Your task to perform on an android device: Search for pizza restaurants on Maps Image 0: 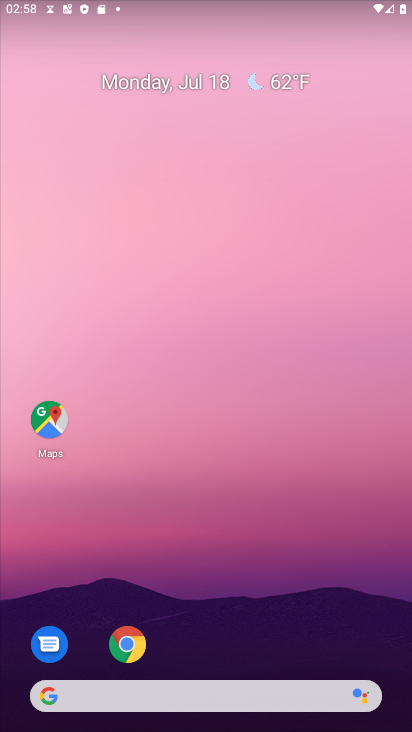
Step 0: drag from (232, 465) to (197, 285)
Your task to perform on an android device: Search for pizza restaurants on Maps Image 1: 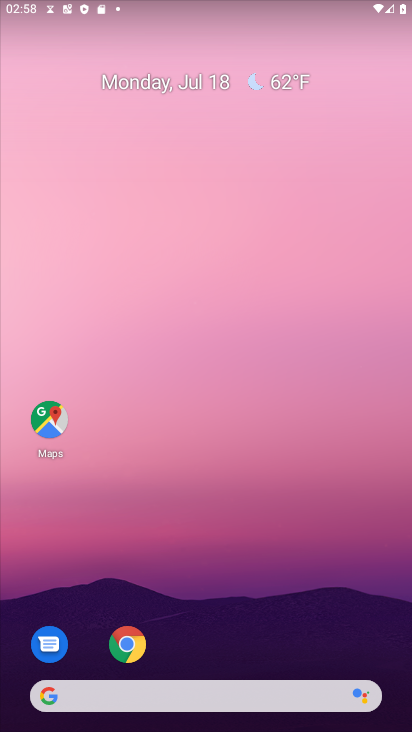
Step 1: drag from (225, 672) to (189, 332)
Your task to perform on an android device: Search for pizza restaurants on Maps Image 2: 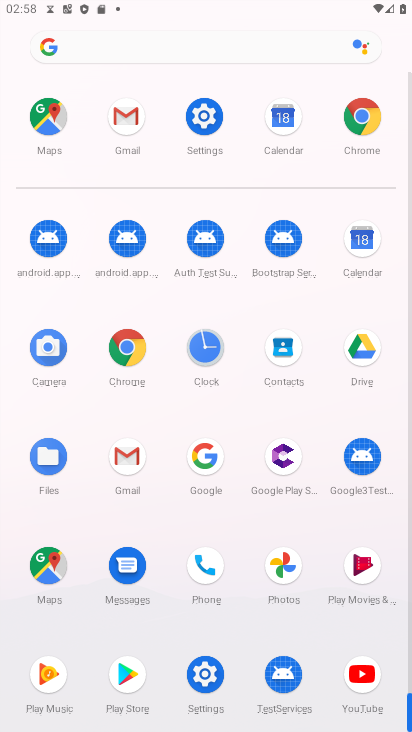
Step 2: click (38, 571)
Your task to perform on an android device: Search for pizza restaurants on Maps Image 3: 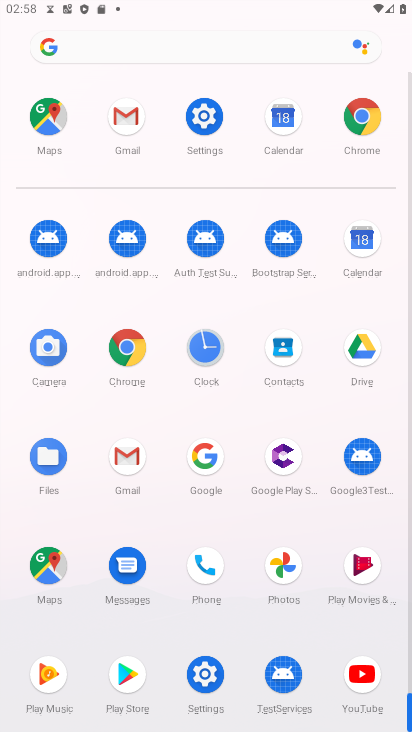
Step 3: click (40, 570)
Your task to perform on an android device: Search for pizza restaurants on Maps Image 4: 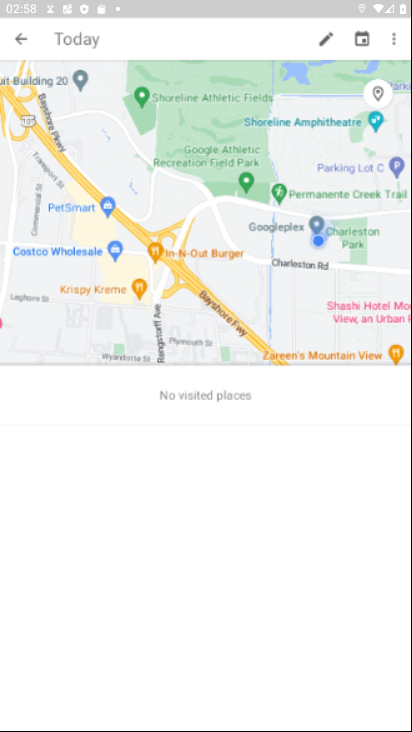
Step 4: click (101, 27)
Your task to perform on an android device: Search for pizza restaurants on Maps Image 5: 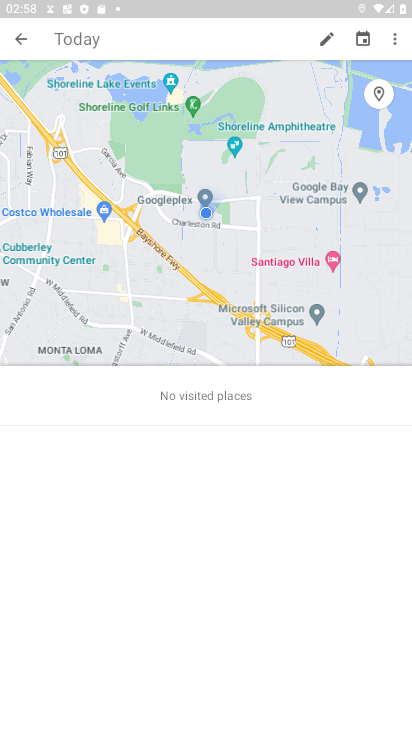
Step 5: click (110, 45)
Your task to perform on an android device: Search for pizza restaurants on Maps Image 6: 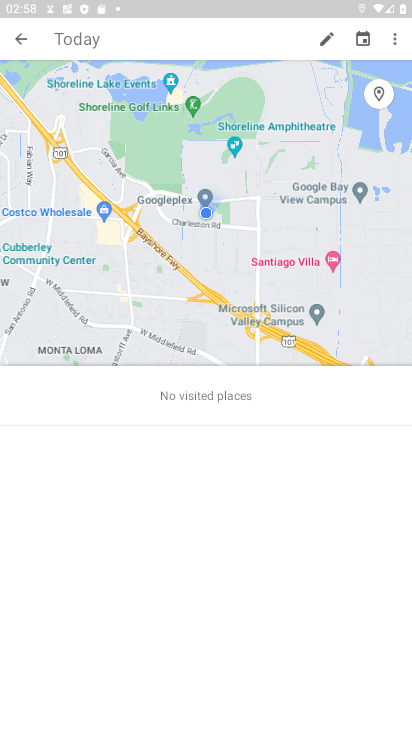
Step 6: click (111, 34)
Your task to perform on an android device: Search for pizza restaurants on Maps Image 7: 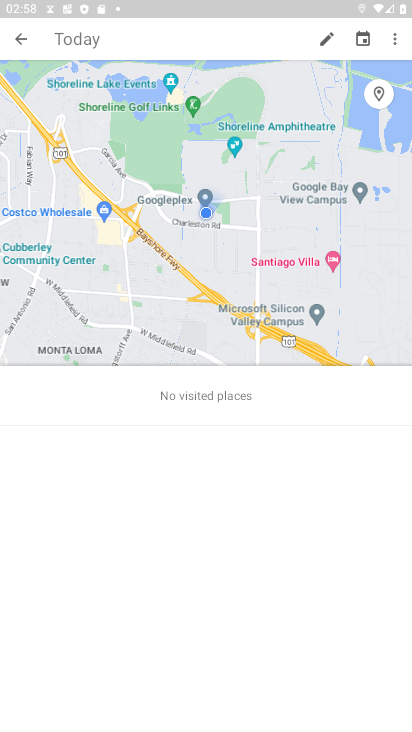
Step 7: click (110, 35)
Your task to perform on an android device: Search for pizza restaurants on Maps Image 8: 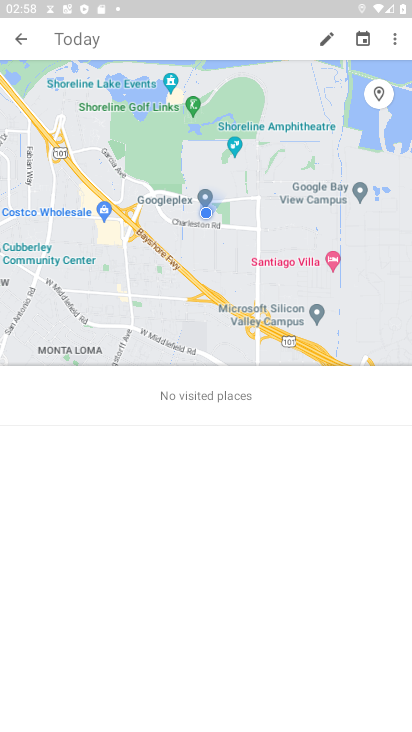
Step 8: click (111, 36)
Your task to perform on an android device: Search for pizza restaurants on Maps Image 9: 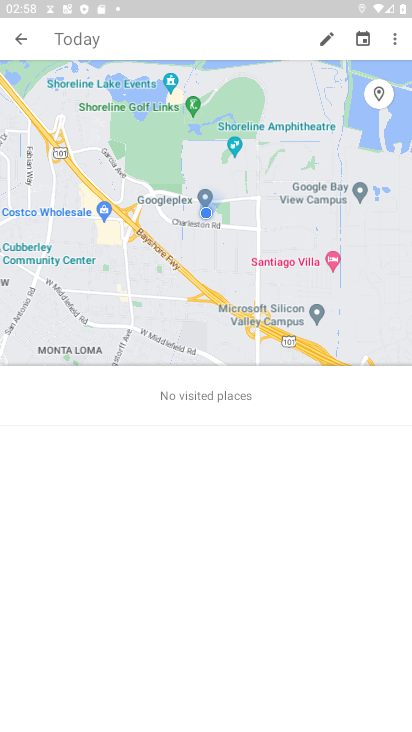
Step 9: click (112, 41)
Your task to perform on an android device: Search for pizza restaurants on Maps Image 10: 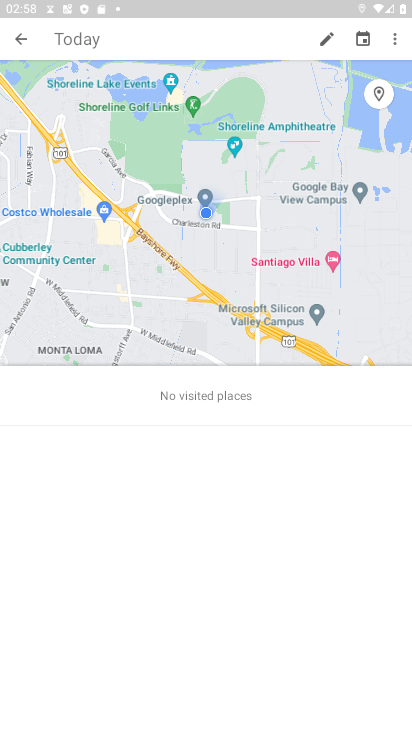
Step 10: click (47, 31)
Your task to perform on an android device: Search for pizza restaurants on Maps Image 11: 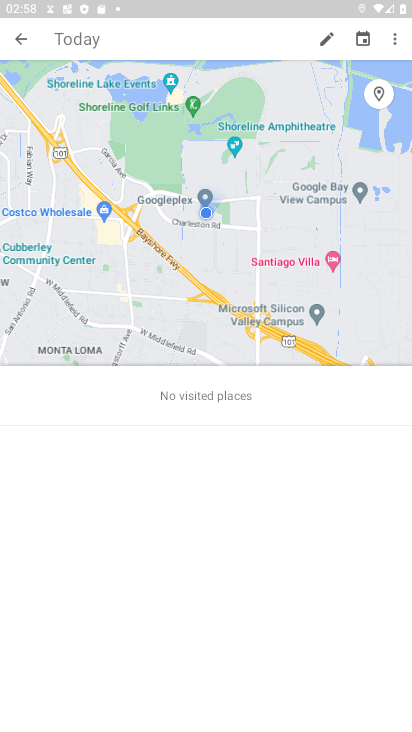
Step 11: click (50, 31)
Your task to perform on an android device: Search for pizza restaurants on Maps Image 12: 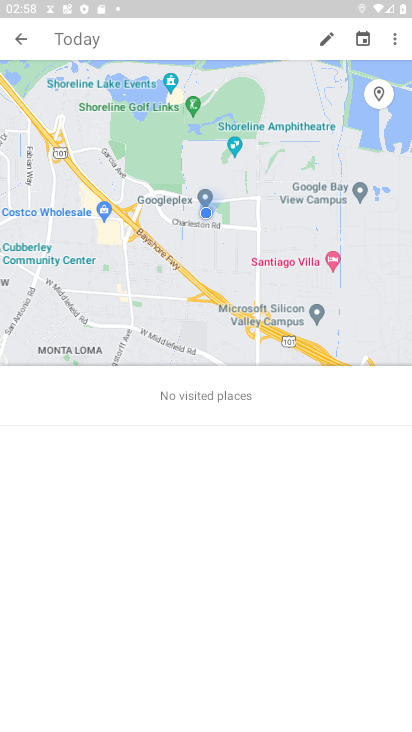
Step 12: click (49, 31)
Your task to perform on an android device: Search for pizza restaurants on Maps Image 13: 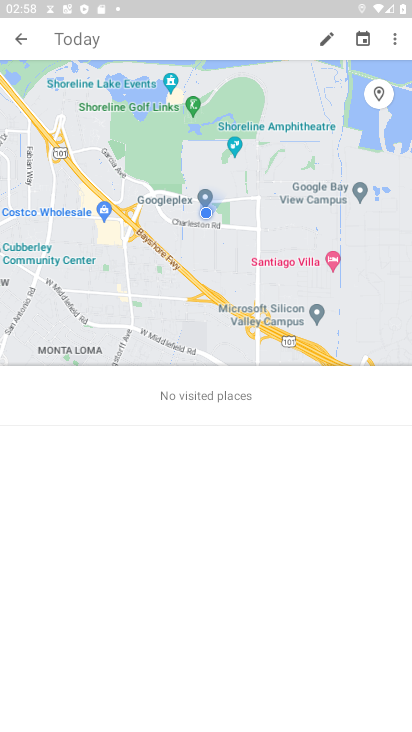
Step 13: click (36, 34)
Your task to perform on an android device: Search for pizza restaurants on Maps Image 14: 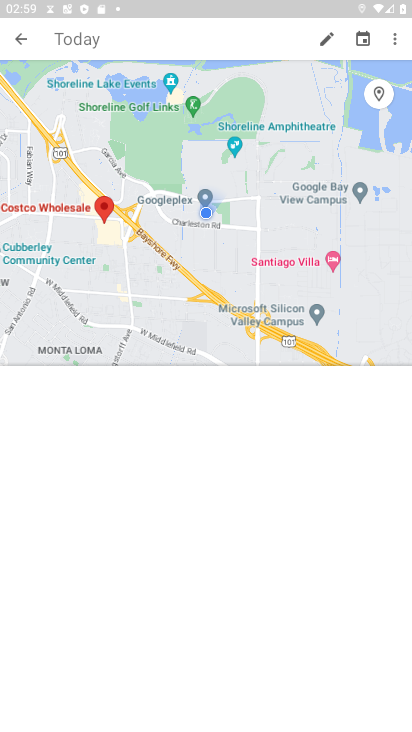
Step 14: click (66, 35)
Your task to perform on an android device: Search for pizza restaurants on Maps Image 15: 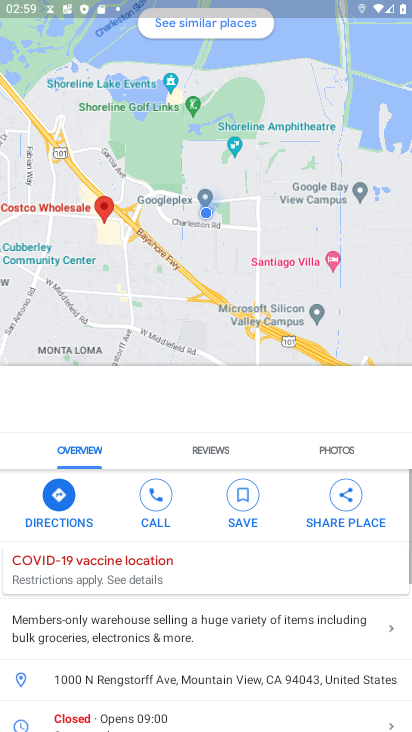
Step 15: click (66, 35)
Your task to perform on an android device: Search for pizza restaurants on Maps Image 16: 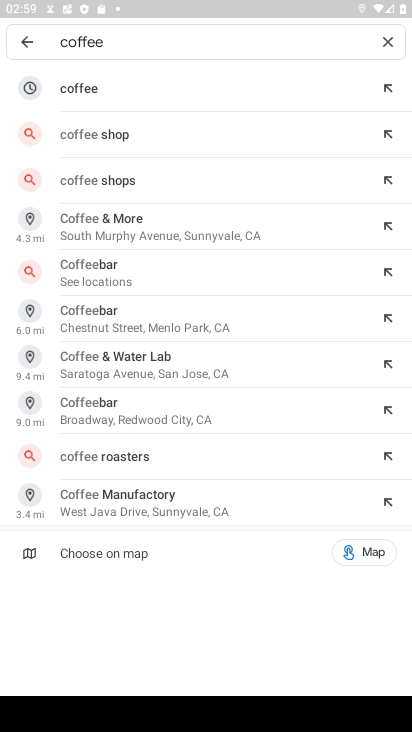
Step 16: click (375, 34)
Your task to perform on an android device: Search for pizza restaurants on Maps Image 17: 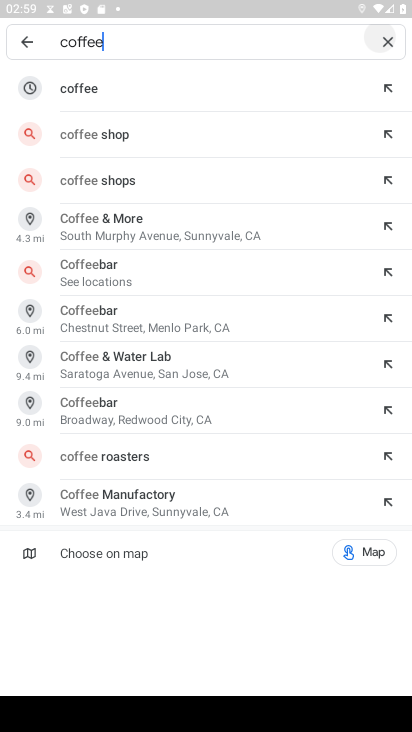
Step 17: click (372, 80)
Your task to perform on an android device: Search for pizza restaurants on Maps Image 18: 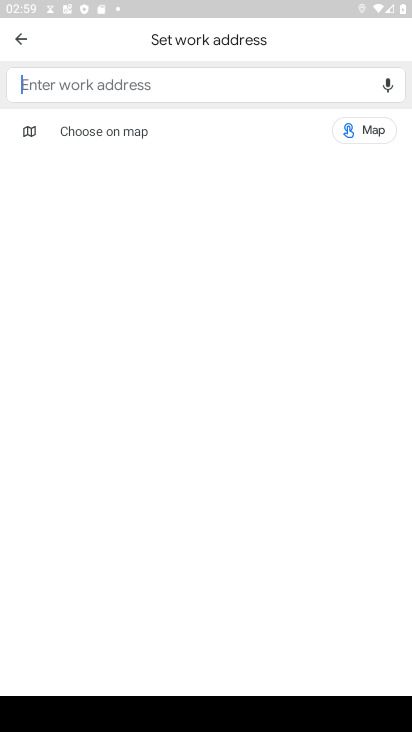
Step 18: type "pizza restaurants"
Your task to perform on an android device: Search for pizza restaurants on Maps Image 19: 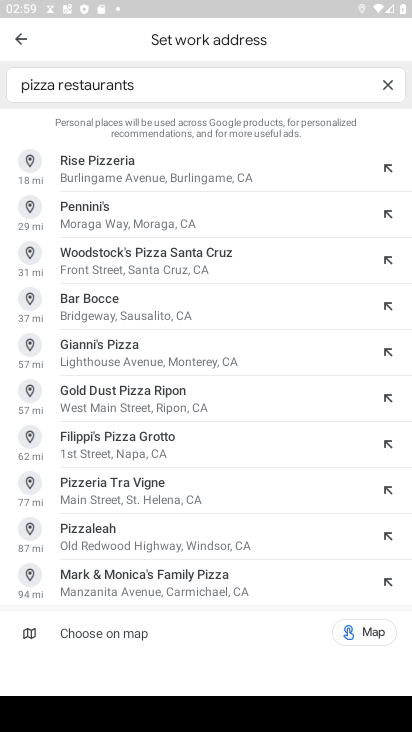
Step 19: click (370, 164)
Your task to perform on an android device: Search for pizza restaurants on Maps Image 20: 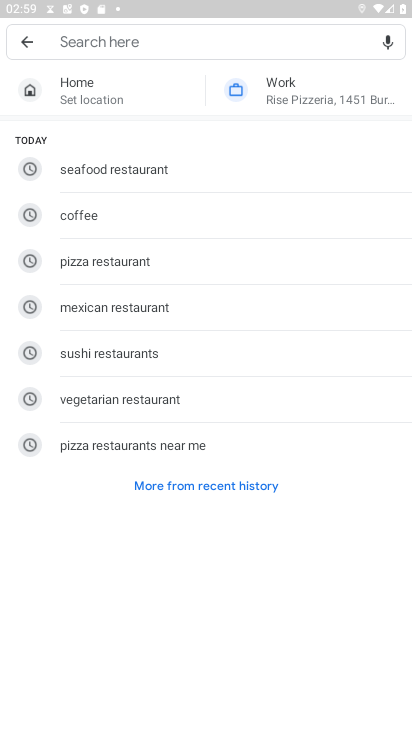
Step 20: click (113, 442)
Your task to perform on an android device: Search for pizza restaurants on Maps Image 21: 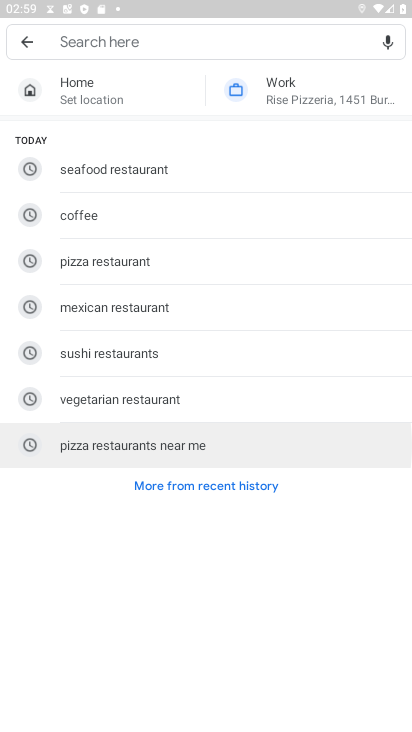
Step 21: click (113, 441)
Your task to perform on an android device: Search for pizza restaurants on Maps Image 22: 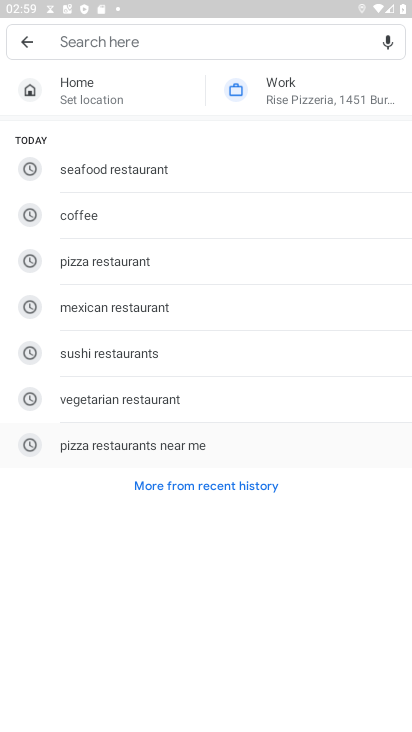
Step 22: click (116, 433)
Your task to perform on an android device: Search for pizza restaurants on Maps Image 23: 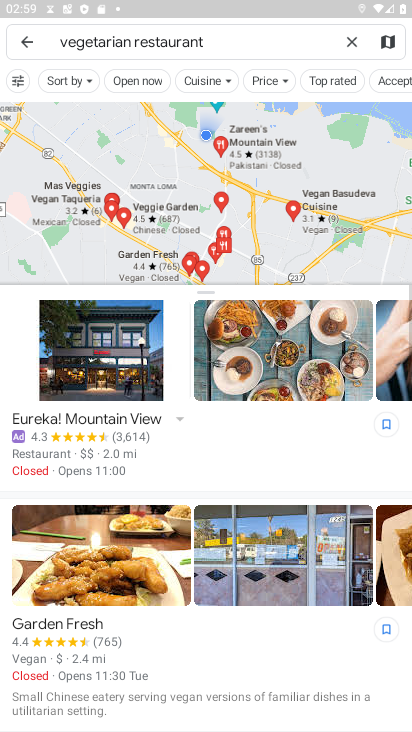
Step 23: click (19, 49)
Your task to perform on an android device: Search for pizza restaurants on Maps Image 24: 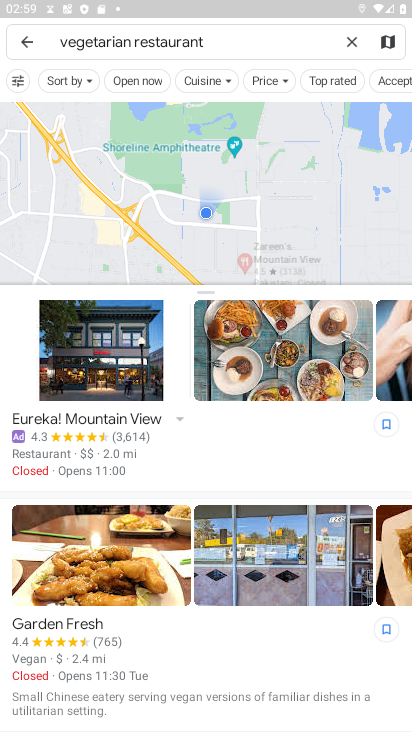
Step 24: press back button
Your task to perform on an android device: Search for pizza restaurants on Maps Image 25: 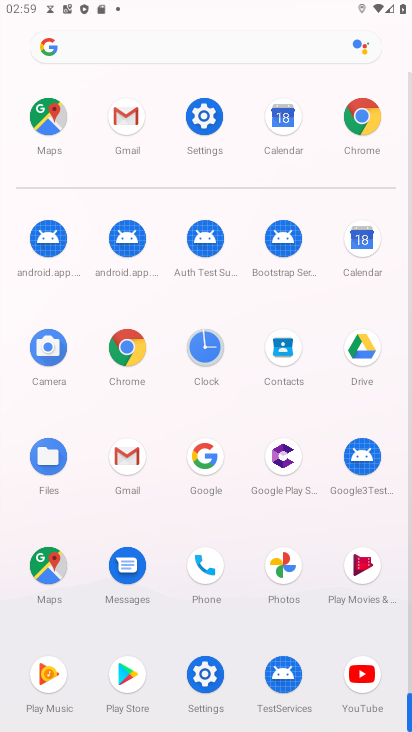
Step 25: press home button
Your task to perform on an android device: Search for pizza restaurants on Maps Image 26: 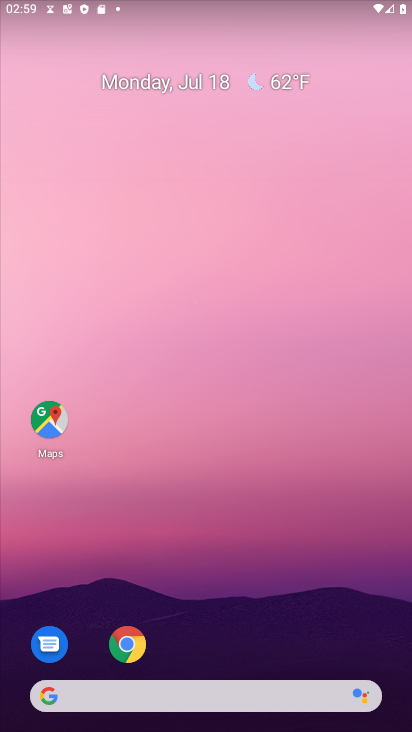
Step 26: drag from (272, 656) to (196, 203)
Your task to perform on an android device: Search for pizza restaurants on Maps Image 27: 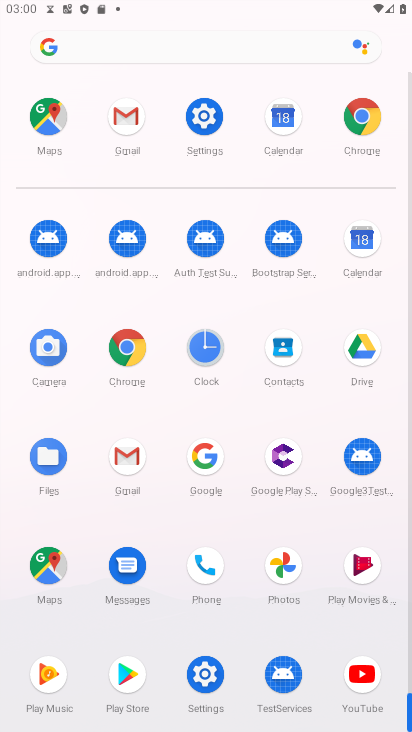
Step 27: click (45, 570)
Your task to perform on an android device: Search for pizza restaurants on Maps Image 28: 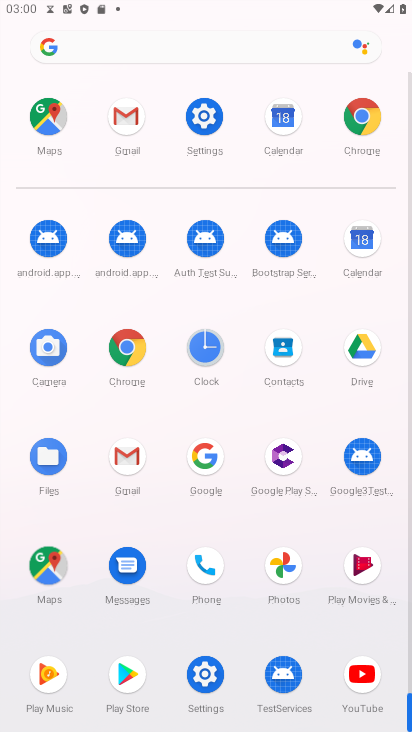
Step 28: click (45, 563)
Your task to perform on an android device: Search for pizza restaurants on Maps Image 29: 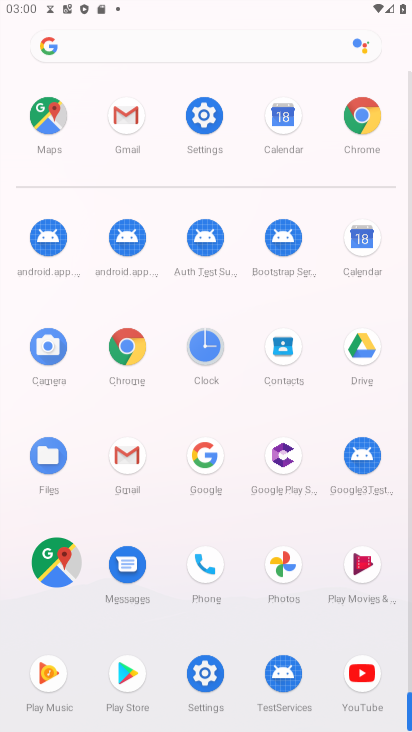
Step 29: click (35, 565)
Your task to perform on an android device: Search for pizza restaurants on Maps Image 30: 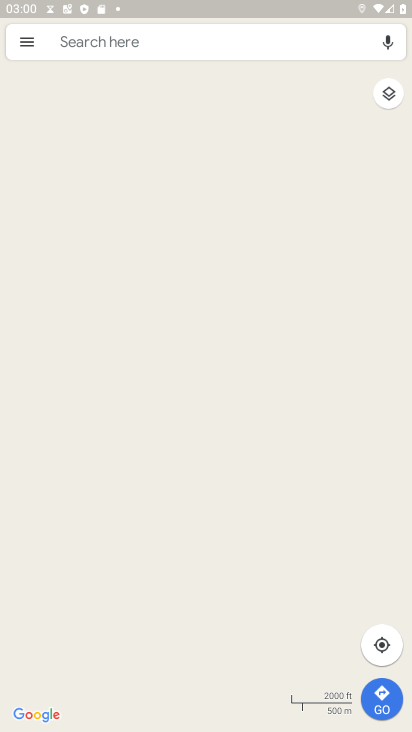
Step 30: click (34, 567)
Your task to perform on an android device: Search for pizza restaurants on Maps Image 31: 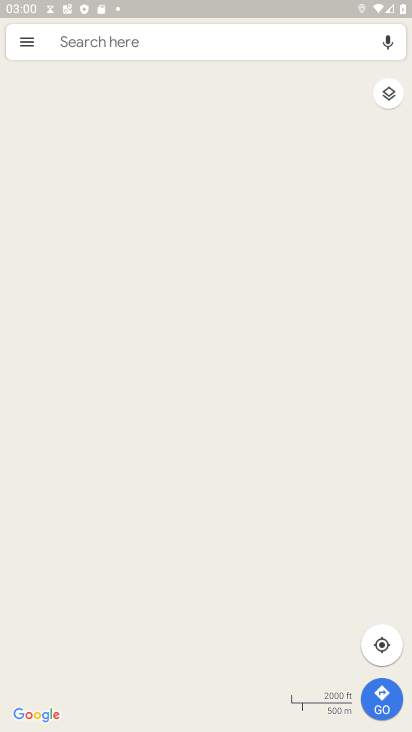
Step 31: click (37, 584)
Your task to perform on an android device: Search for pizza restaurants on Maps Image 32: 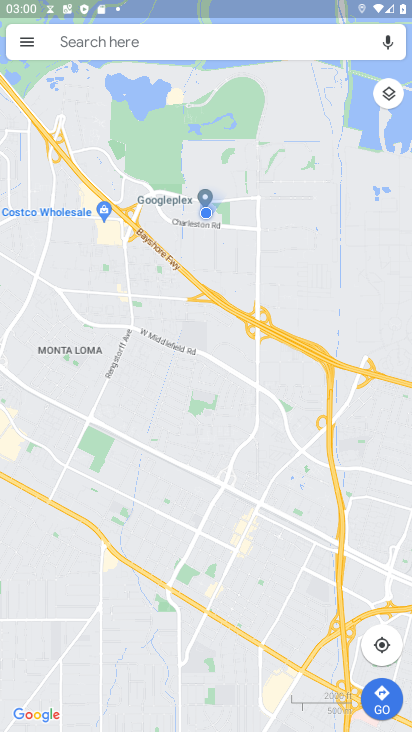
Step 32: click (59, 49)
Your task to perform on an android device: Search for pizza restaurants on Maps Image 33: 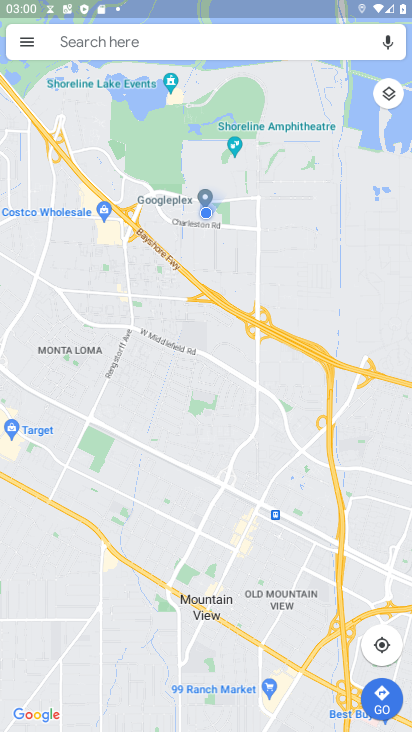
Step 33: click (65, 28)
Your task to perform on an android device: Search for pizza restaurants on Maps Image 34: 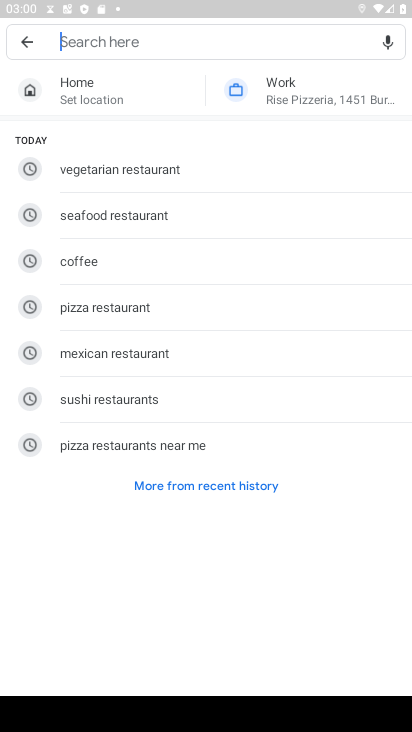
Step 34: click (137, 436)
Your task to perform on an android device: Search for pizza restaurants on Maps Image 35: 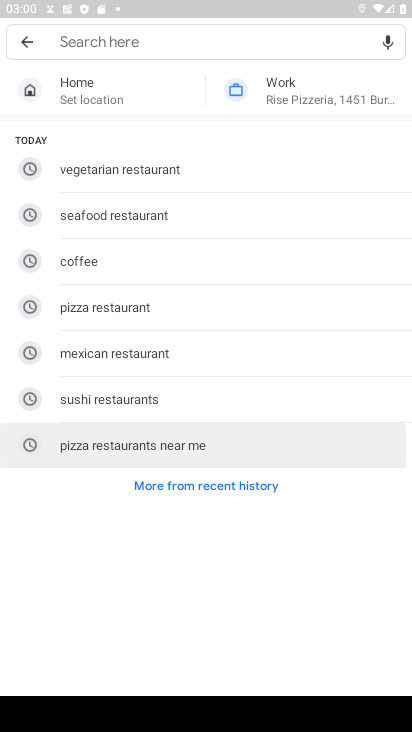
Step 35: click (171, 419)
Your task to perform on an android device: Search for pizza restaurants on Maps Image 36: 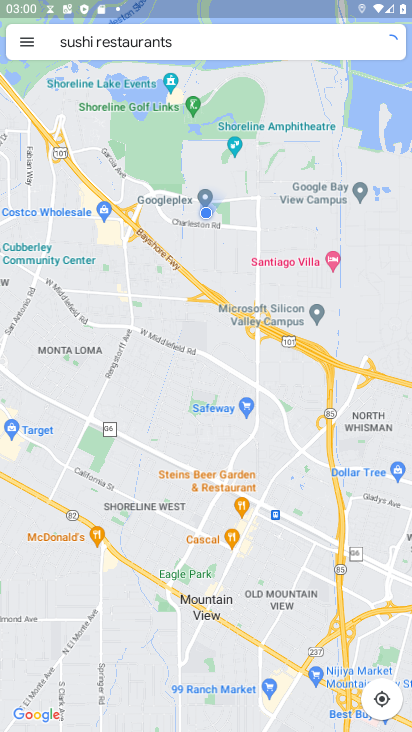
Step 36: task complete